Your task to perform on an android device: open a bookmark in the chrome app Image 0: 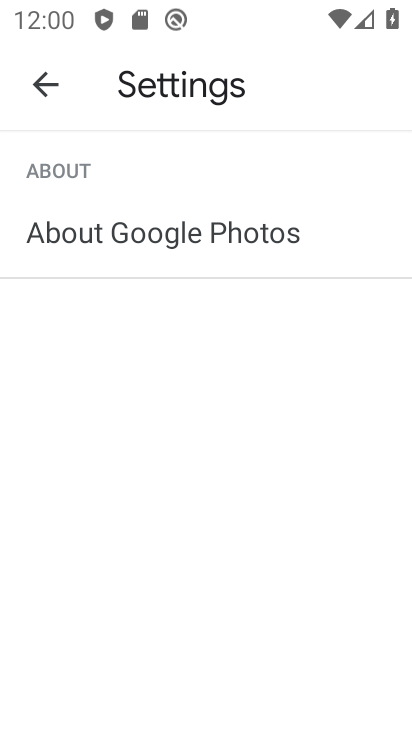
Step 0: press back button
Your task to perform on an android device: open a bookmark in the chrome app Image 1: 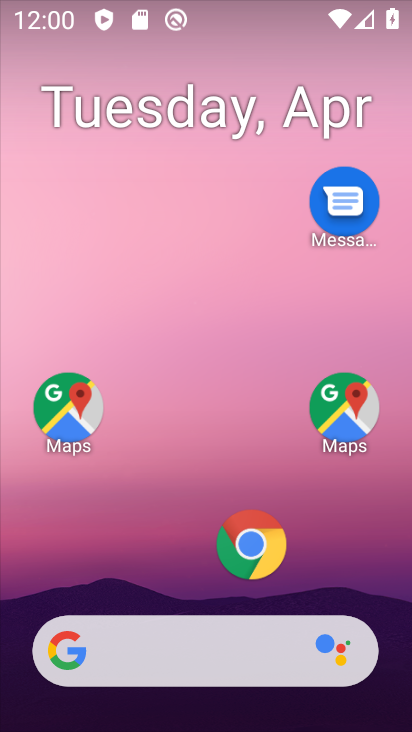
Step 1: click (232, 542)
Your task to perform on an android device: open a bookmark in the chrome app Image 2: 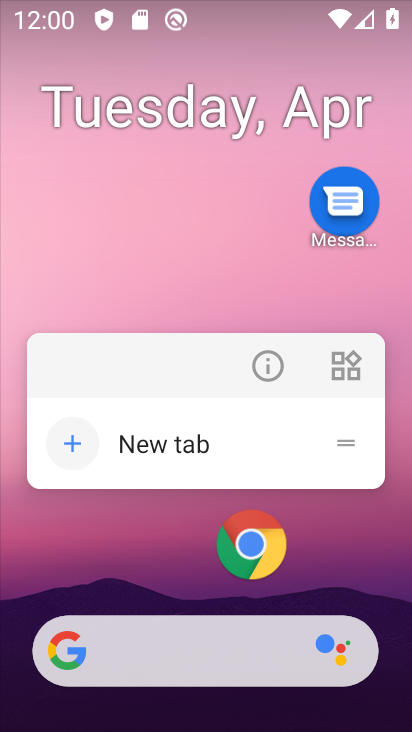
Step 2: click (258, 545)
Your task to perform on an android device: open a bookmark in the chrome app Image 3: 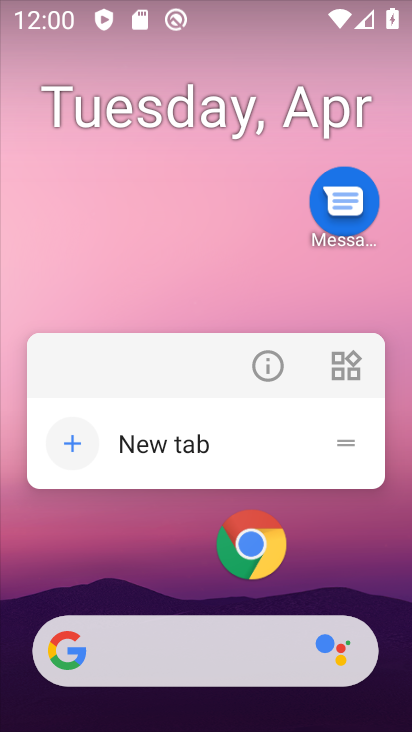
Step 3: click (250, 550)
Your task to perform on an android device: open a bookmark in the chrome app Image 4: 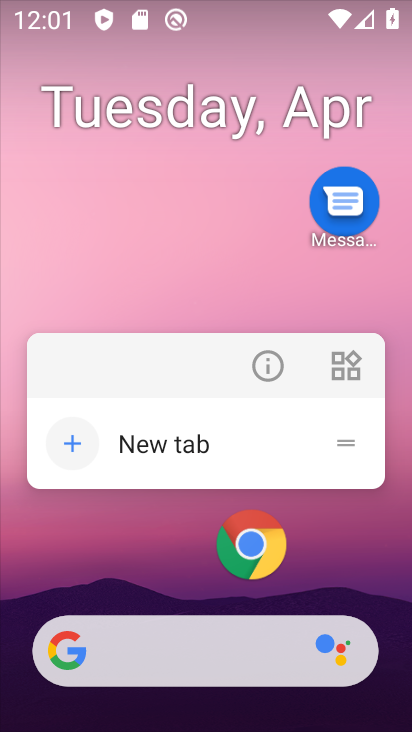
Step 4: click (233, 525)
Your task to perform on an android device: open a bookmark in the chrome app Image 5: 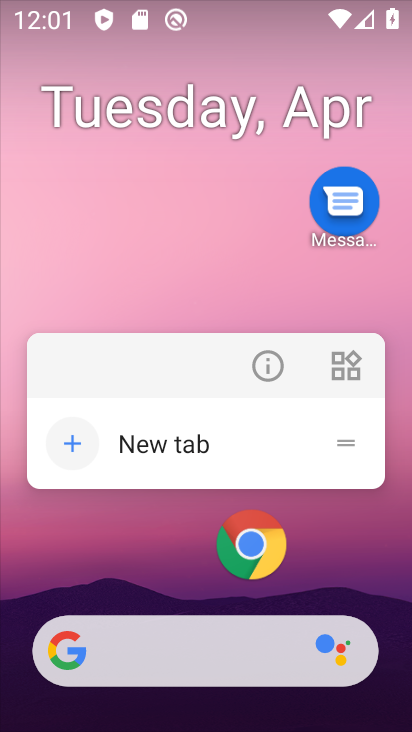
Step 5: click (235, 552)
Your task to perform on an android device: open a bookmark in the chrome app Image 6: 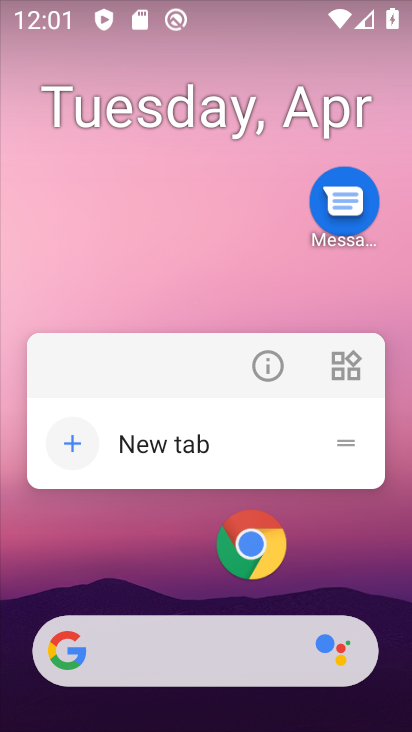
Step 6: click (258, 548)
Your task to perform on an android device: open a bookmark in the chrome app Image 7: 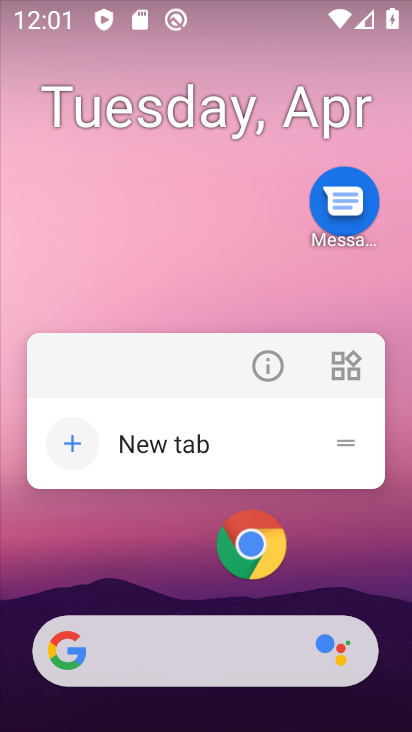
Step 7: click (242, 552)
Your task to perform on an android device: open a bookmark in the chrome app Image 8: 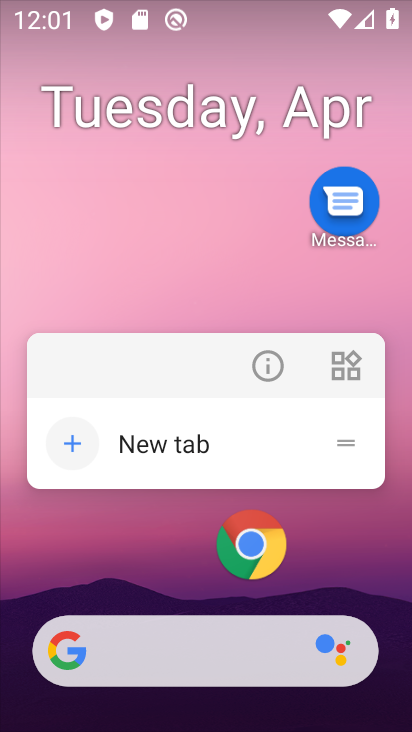
Step 8: click (244, 552)
Your task to perform on an android device: open a bookmark in the chrome app Image 9: 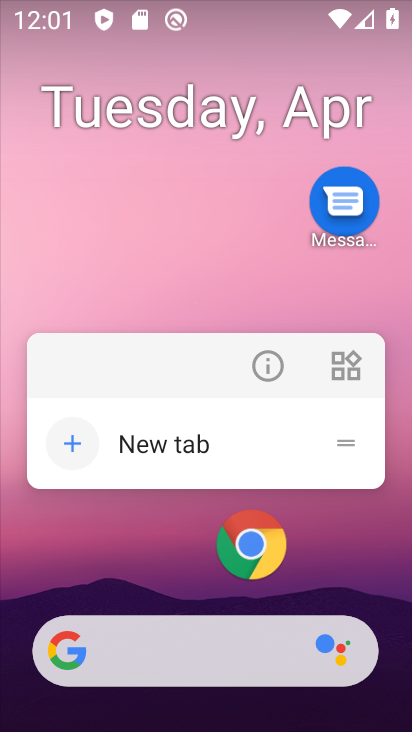
Step 9: click (267, 558)
Your task to perform on an android device: open a bookmark in the chrome app Image 10: 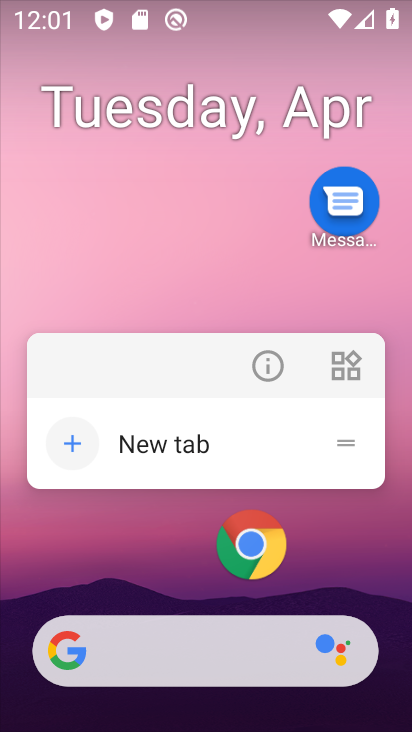
Step 10: click (266, 557)
Your task to perform on an android device: open a bookmark in the chrome app Image 11: 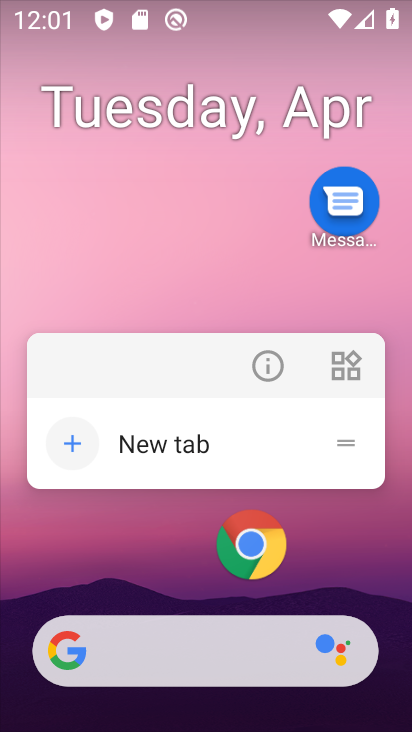
Step 11: click (277, 552)
Your task to perform on an android device: open a bookmark in the chrome app Image 12: 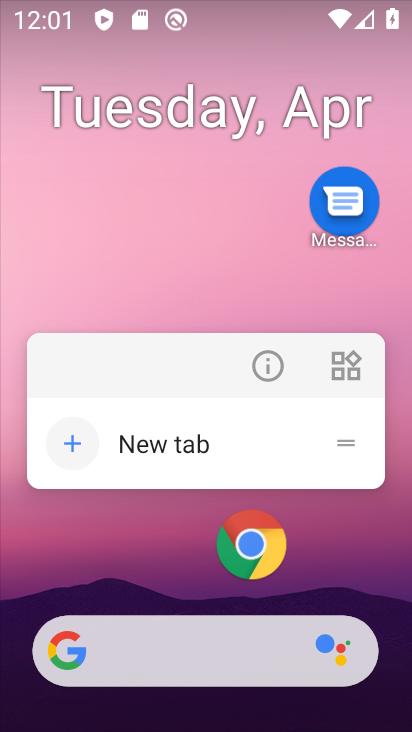
Step 12: click (275, 552)
Your task to perform on an android device: open a bookmark in the chrome app Image 13: 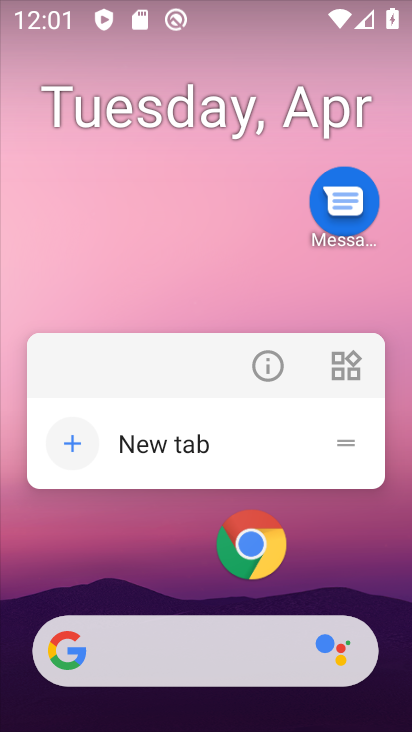
Step 13: drag from (133, 610) to (256, 132)
Your task to perform on an android device: open a bookmark in the chrome app Image 14: 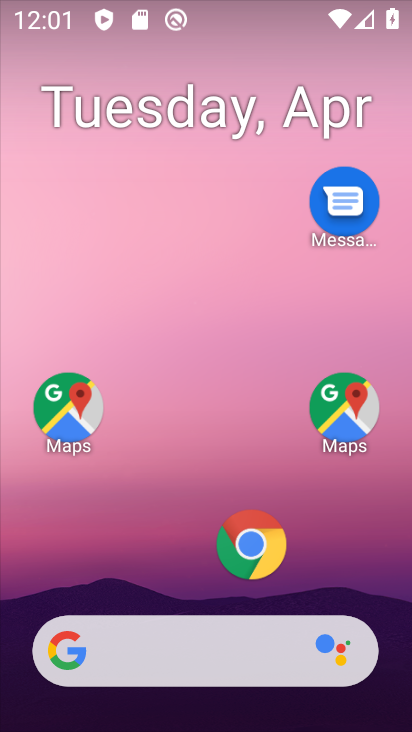
Step 14: drag from (135, 577) to (177, 94)
Your task to perform on an android device: open a bookmark in the chrome app Image 15: 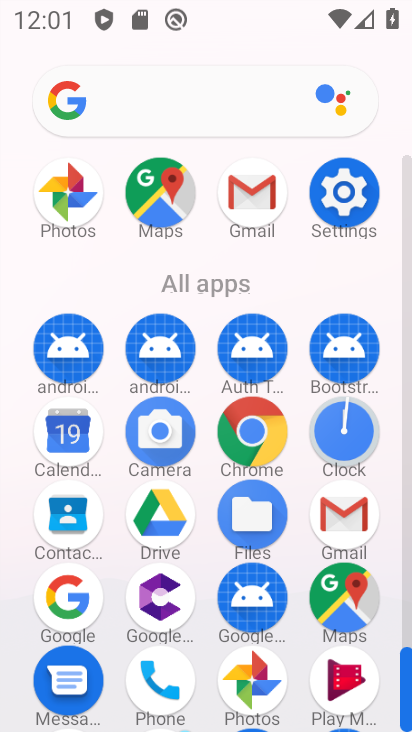
Step 15: click (231, 435)
Your task to perform on an android device: open a bookmark in the chrome app Image 16: 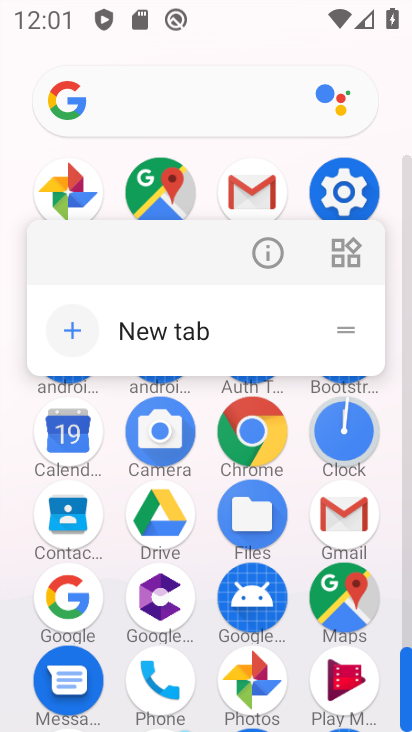
Step 16: click (242, 431)
Your task to perform on an android device: open a bookmark in the chrome app Image 17: 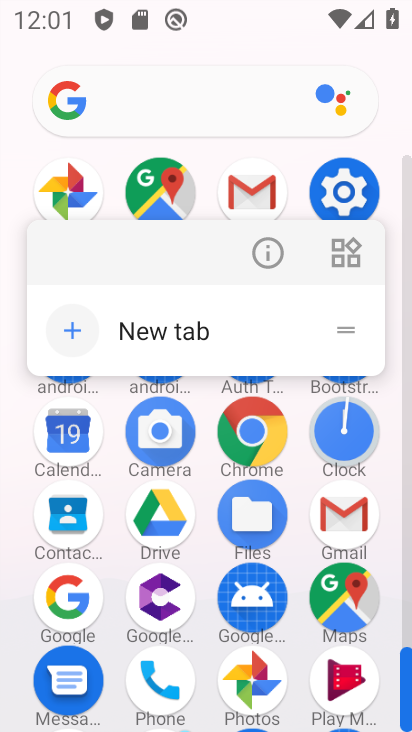
Step 17: click (259, 441)
Your task to perform on an android device: open a bookmark in the chrome app Image 18: 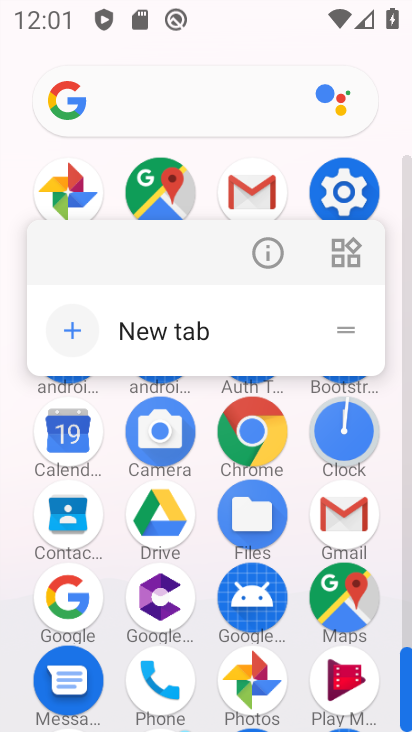
Step 18: click (268, 444)
Your task to perform on an android device: open a bookmark in the chrome app Image 19: 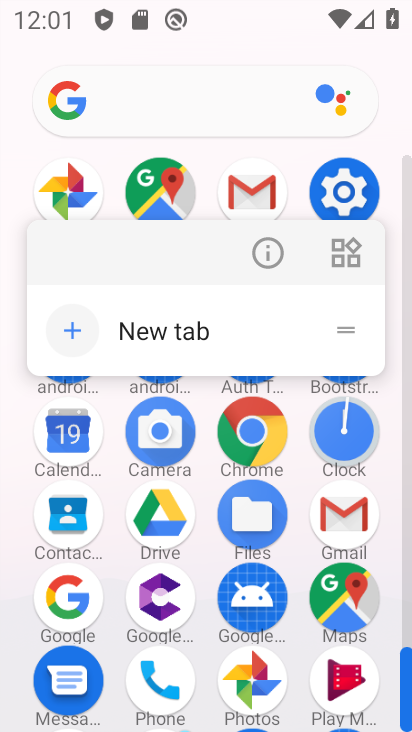
Step 19: click (263, 421)
Your task to perform on an android device: open a bookmark in the chrome app Image 20: 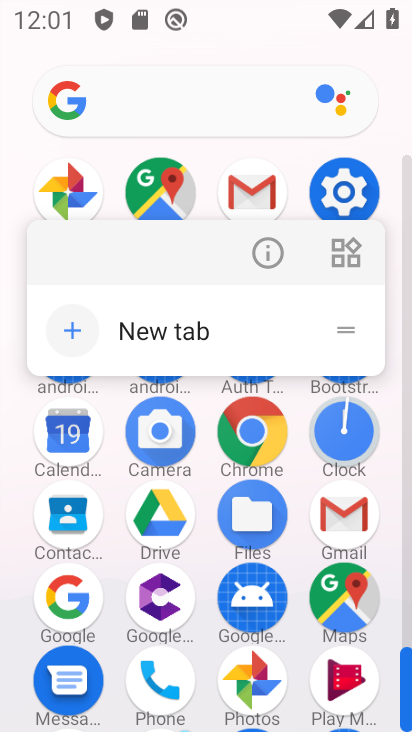
Step 20: click (246, 413)
Your task to perform on an android device: open a bookmark in the chrome app Image 21: 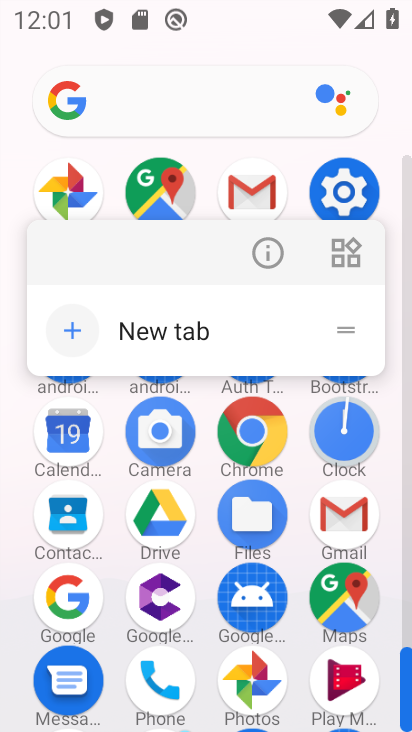
Step 21: click (244, 437)
Your task to perform on an android device: open a bookmark in the chrome app Image 22: 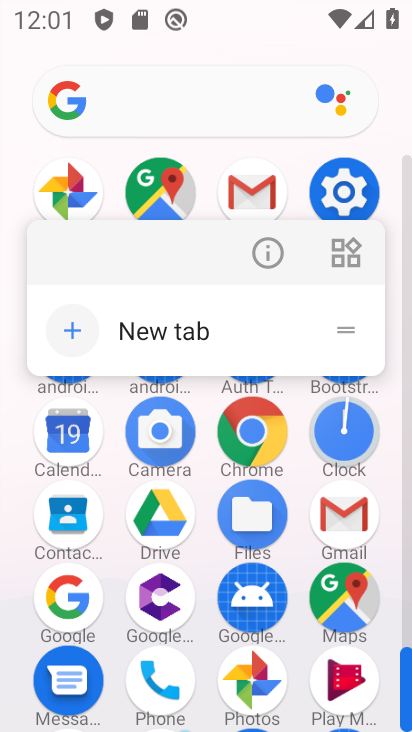
Step 22: click (248, 438)
Your task to perform on an android device: open a bookmark in the chrome app Image 23: 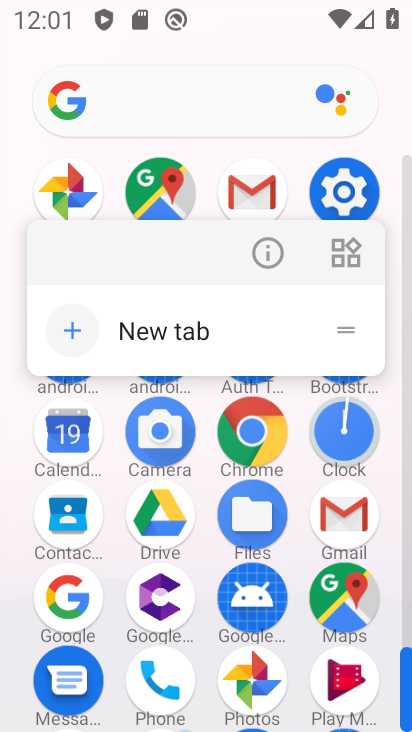
Step 23: click (269, 442)
Your task to perform on an android device: open a bookmark in the chrome app Image 24: 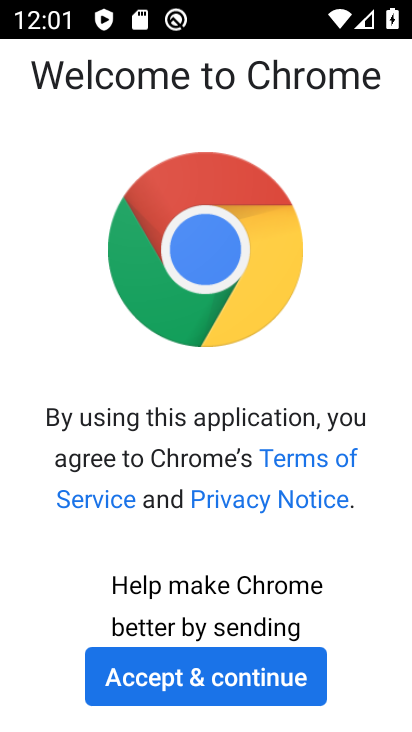
Step 24: click (240, 669)
Your task to perform on an android device: open a bookmark in the chrome app Image 25: 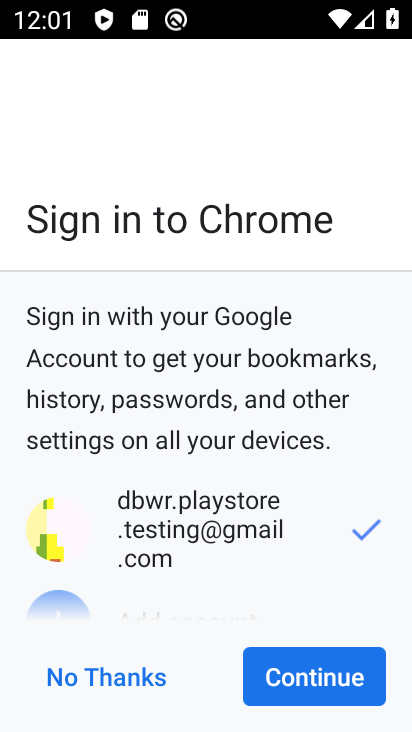
Step 25: click (338, 681)
Your task to perform on an android device: open a bookmark in the chrome app Image 26: 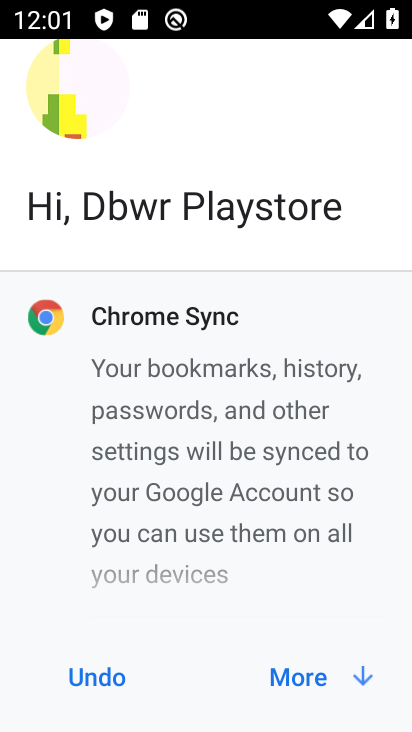
Step 26: click (337, 681)
Your task to perform on an android device: open a bookmark in the chrome app Image 27: 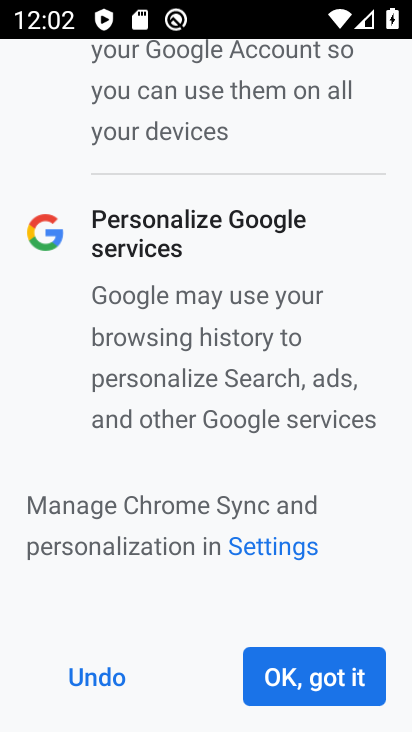
Step 27: click (335, 681)
Your task to perform on an android device: open a bookmark in the chrome app Image 28: 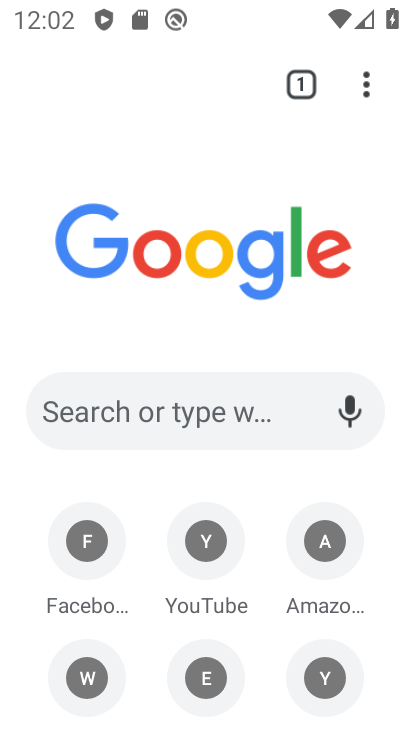
Step 28: click (377, 96)
Your task to perform on an android device: open a bookmark in the chrome app Image 29: 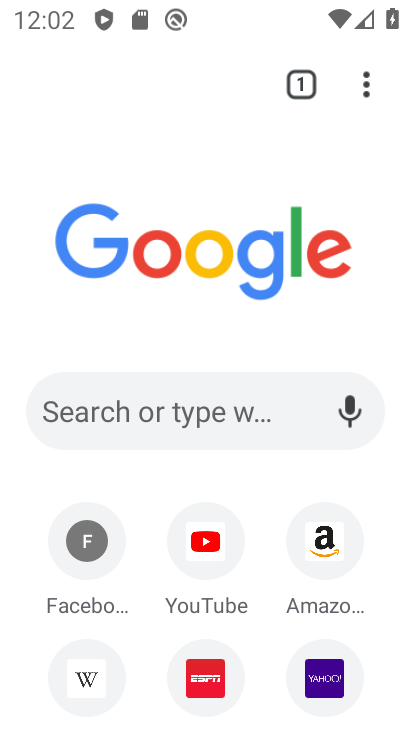
Step 29: click (369, 92)
Your task to perform on an android device: open a bookmark in the chrome app Image 30: 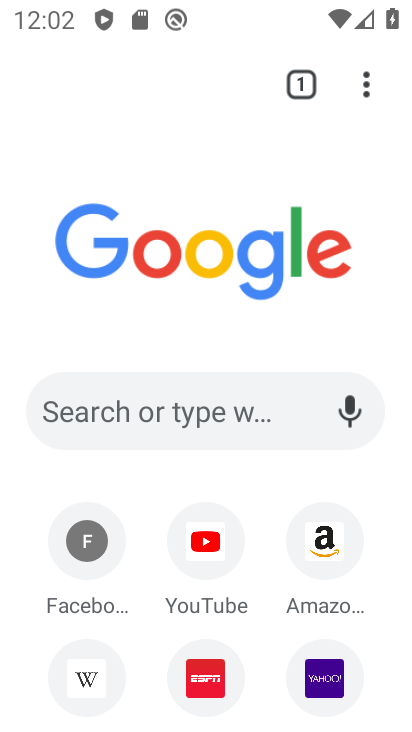
Step 30: task complete